Your task to perform on an android device: Go to eBay Image 0: 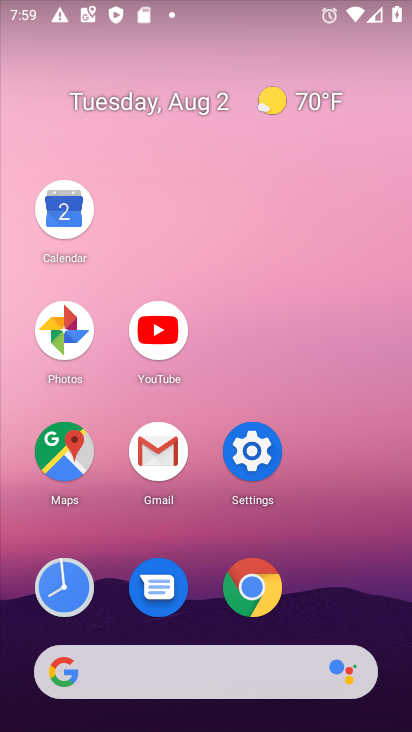
Step 0: click (244, 588)
Your task to perform on an android device: Go to eBay Image 1: 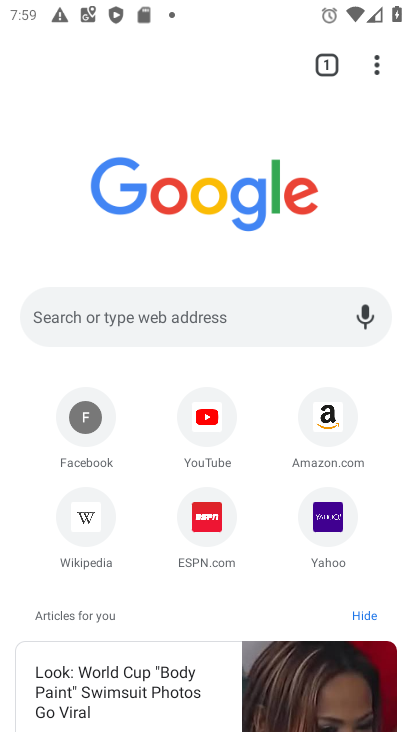
Step 1: click (192, 292)
Your task to perform on an android device: Go to eBay Image 2: 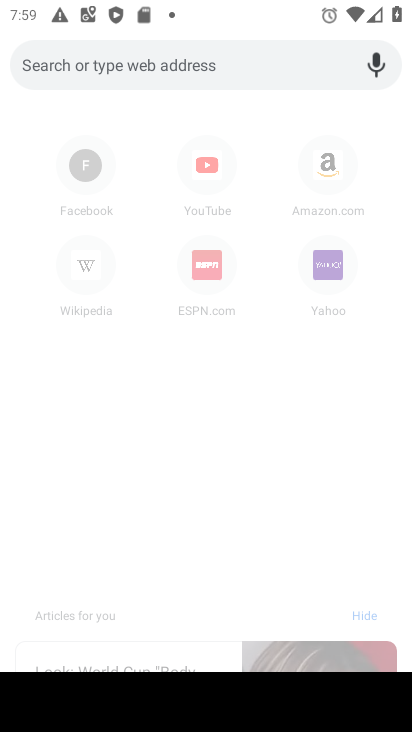
Step 2: type "ebay"
Your task to perform on an android device: Go to eBay Image 3: 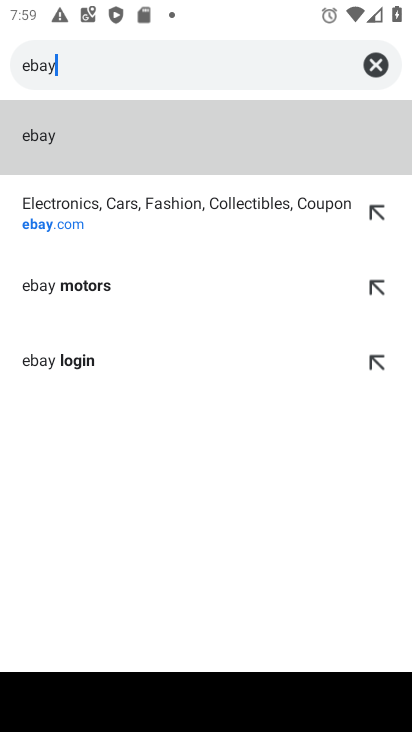
Step 3: click (45, 136)
Your task to perform on an android device: Go to eBay Image 4: 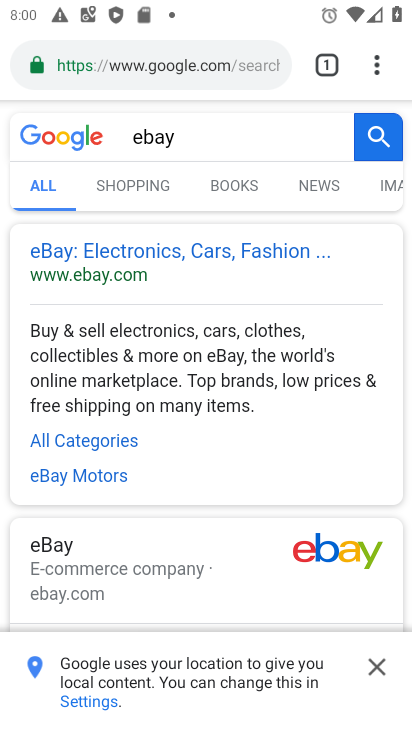
Step 4: click (82, 246)
Your task to perform on an android device: Go to eBay Image 5: 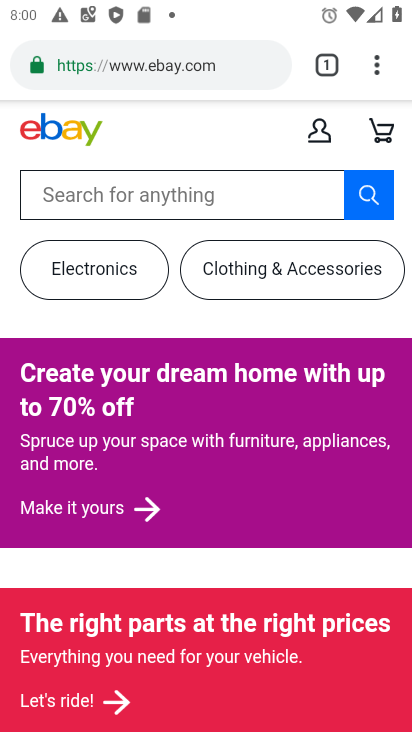
Step 5: task complete